Your task to perform on an android device: open app "PUBG MOBILE" Image 0: 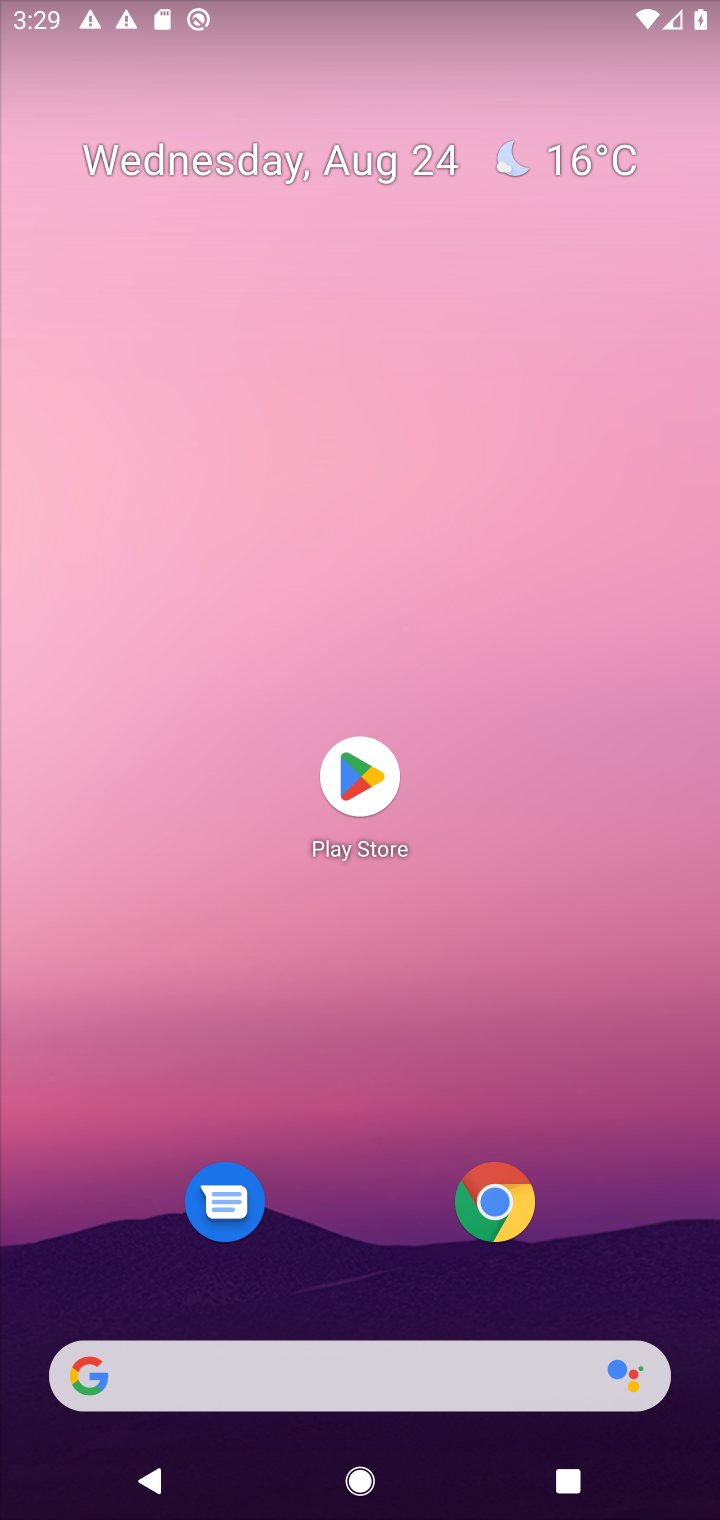
Step 0: click (364, 770)
Your task to perform on an android device: open app "PUBG MOBILE" Image 1: 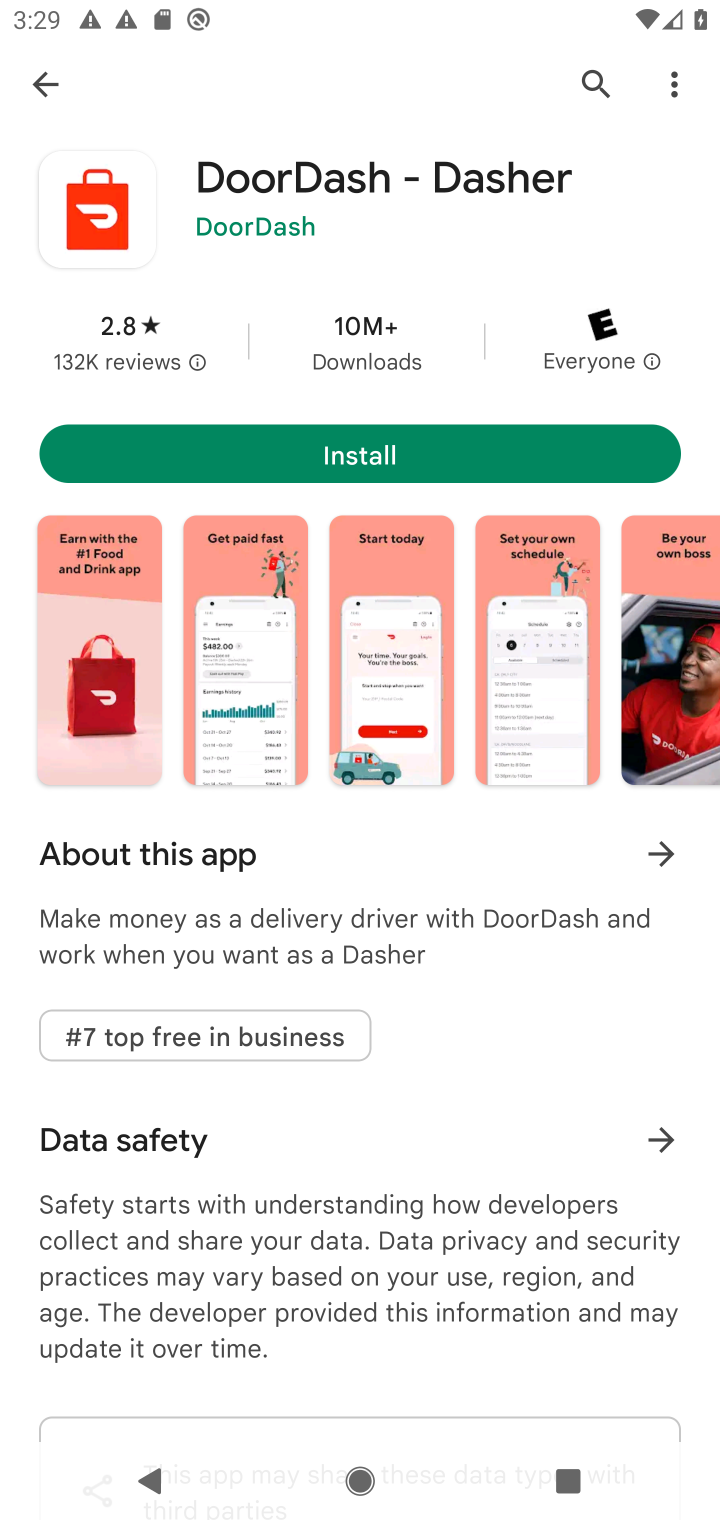
Step 1: click (581, 71)
Your task to perform on an android device: open app "PUBG MOBILE" Image 2: 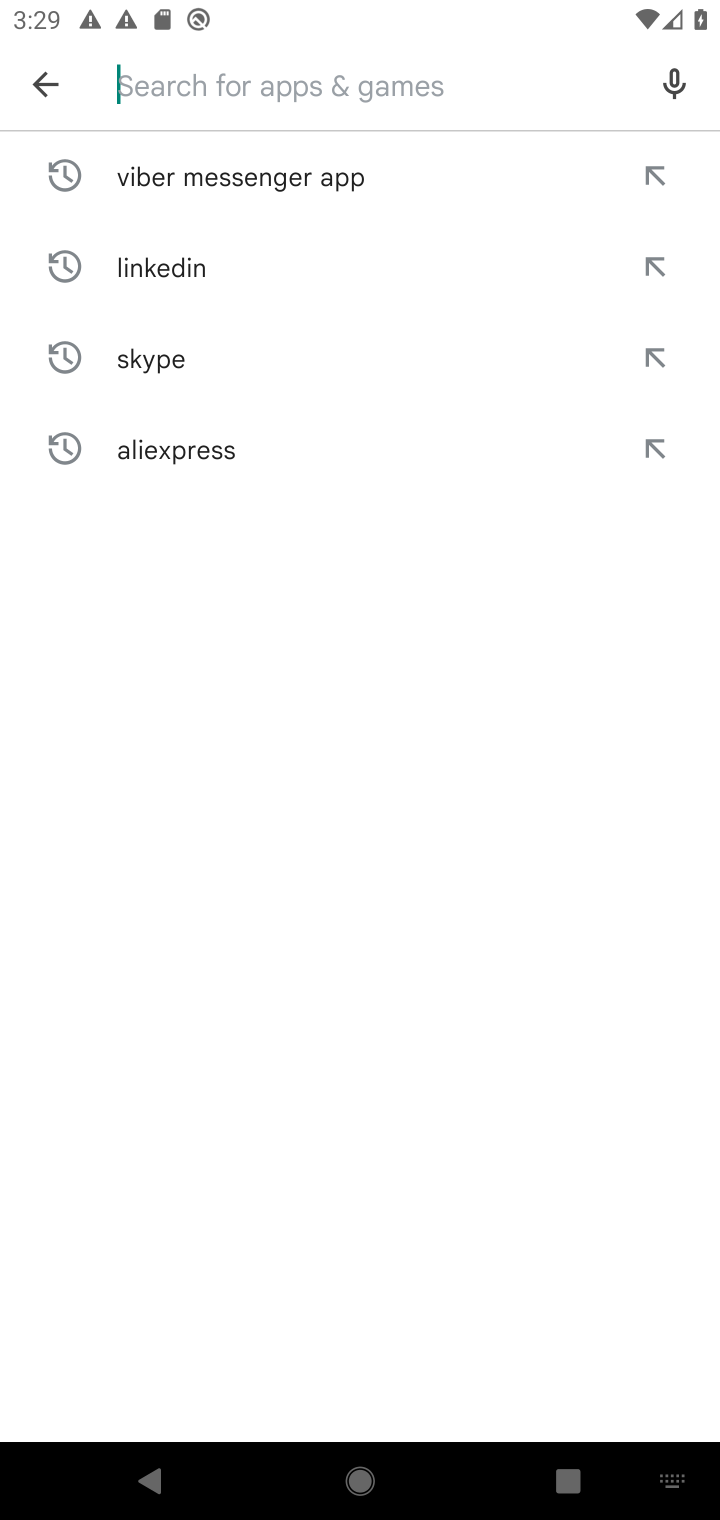
Step 2: type "PUBG MOBILE"
Your task to perform on an android device: open app "PUBG MOBILE" Image 3: 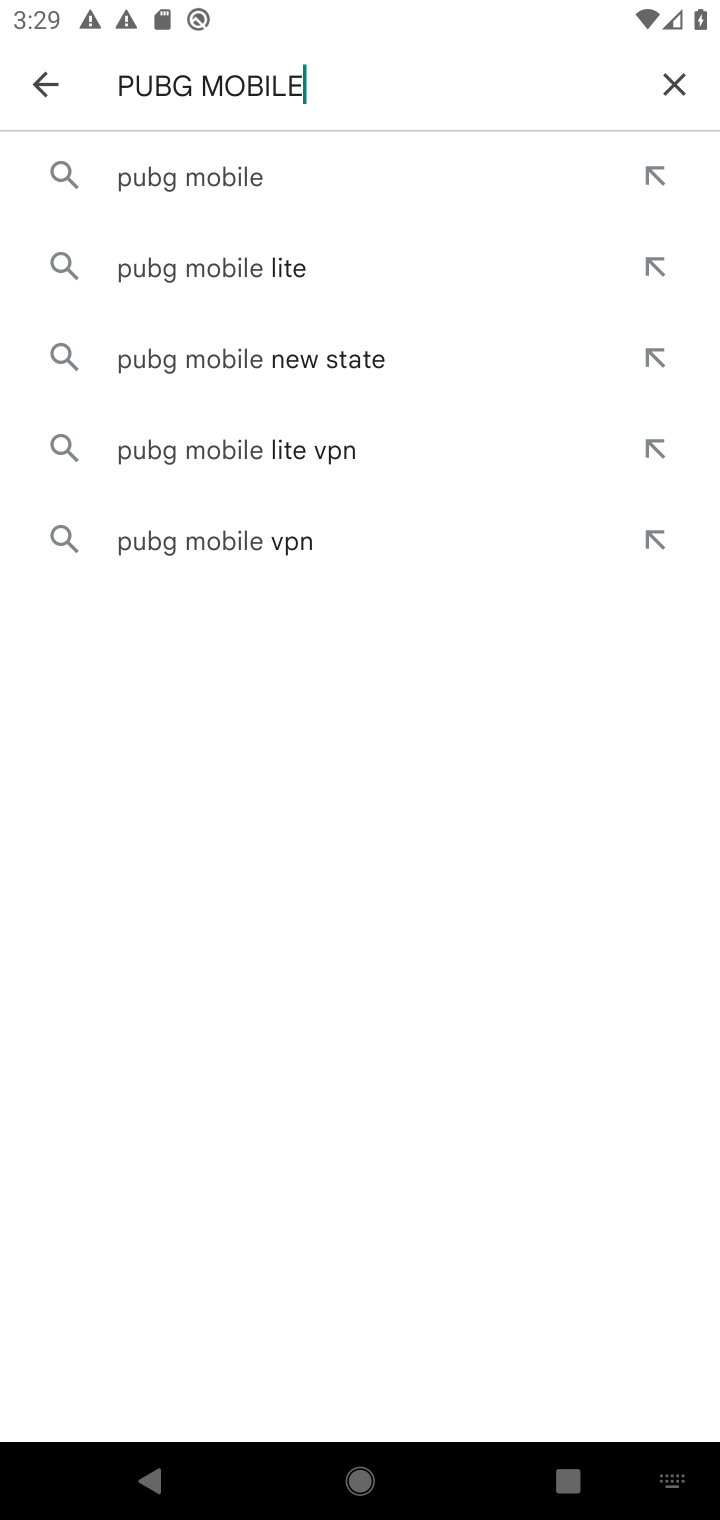
Step 3: click (241, 176)
Your task to perform on an android device: open app "PUBG MOBILE" Image 4: 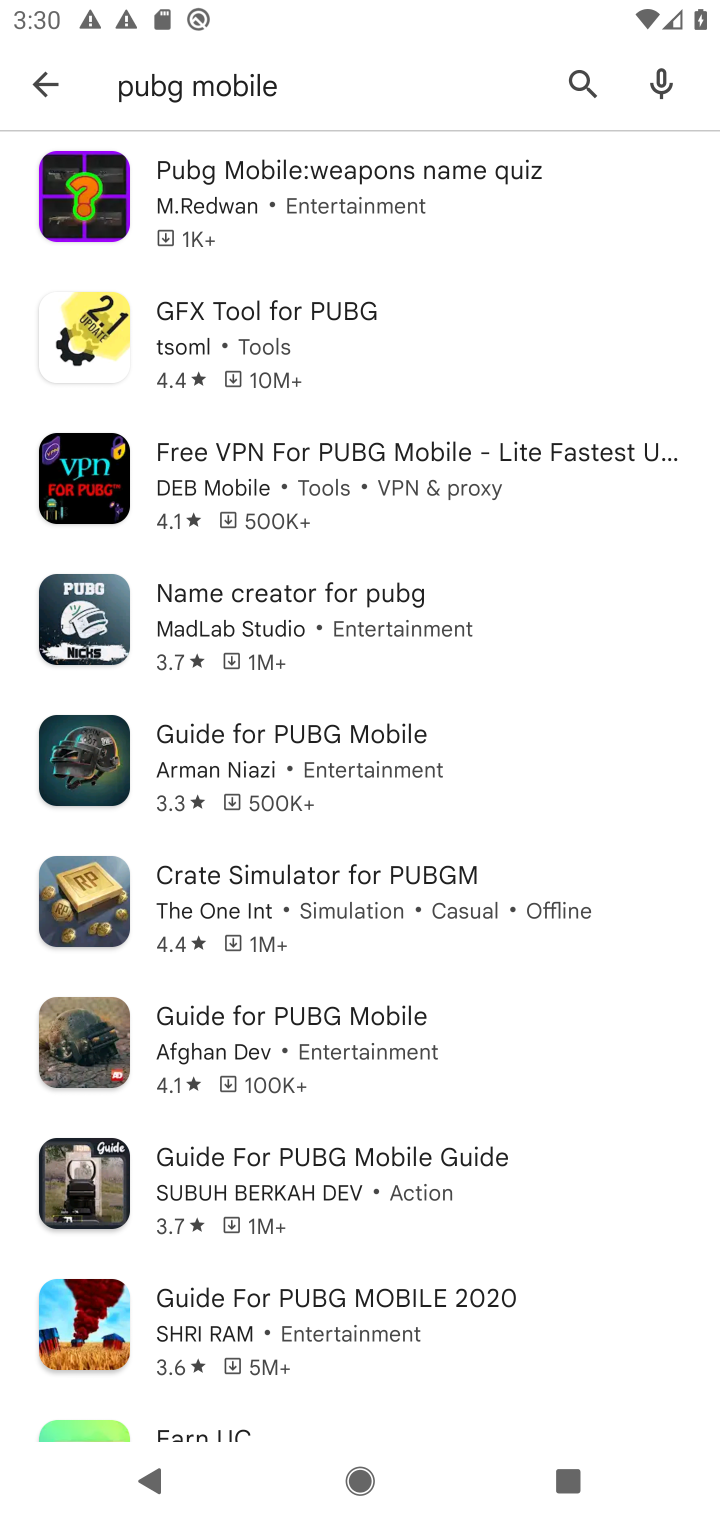
Step 4: click (324, 195)
Your task to perform on an android device: open app "PUBG MOBILE" Image 5: 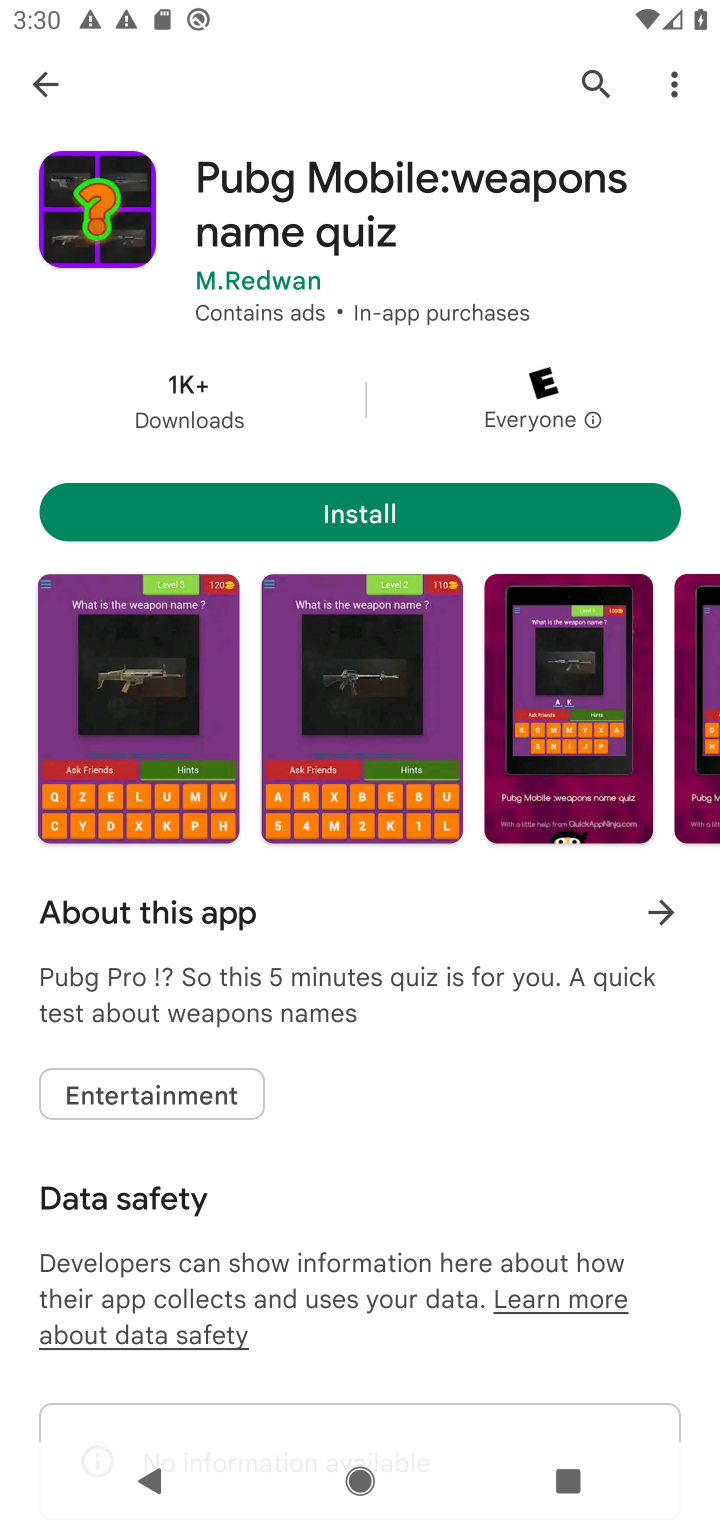
Step 5: task complete